Your task to perform on an android device: turn off javascript in the chrome app Image 0: 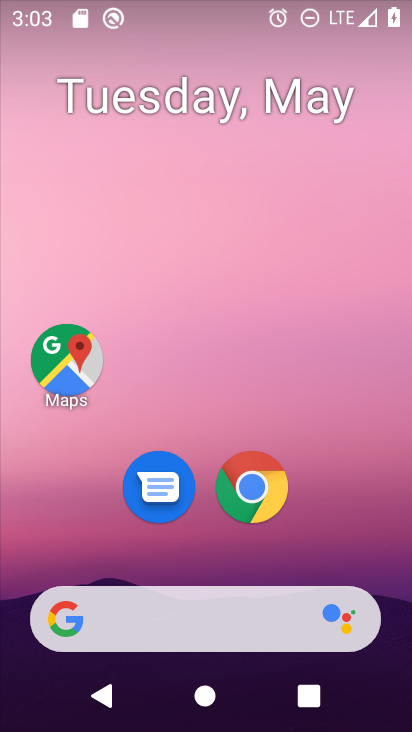
Step 0: click (245, 484)
Your task to perform on an android device: turn off javascript in the chrome app Image 1: 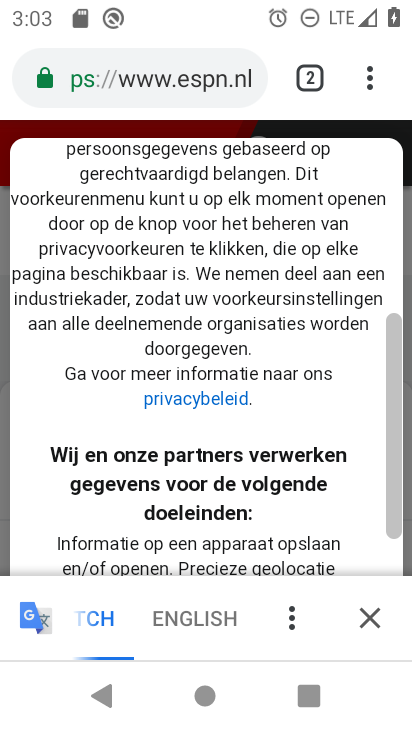
Step 1: click (366, 86)
Your task to perform on an android device: turn off javascript in the chrome app Image 2: 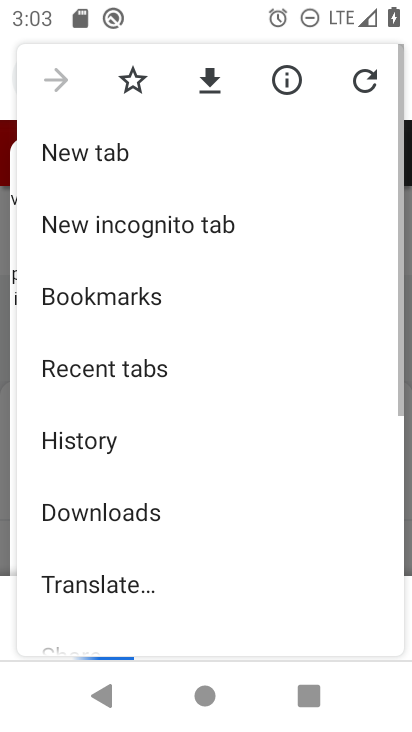
Step 2: drag from (159, 591) to (229, 134)
Your task to perform on an android device: turn off javascript in the chrome app Image 3: 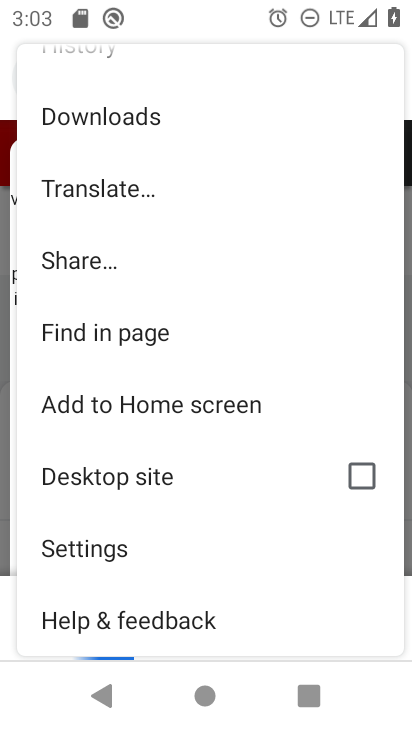
Step 3: click (83, 544)
Your task to perform on an android device: turn off javascript in the chrome app Image 4: 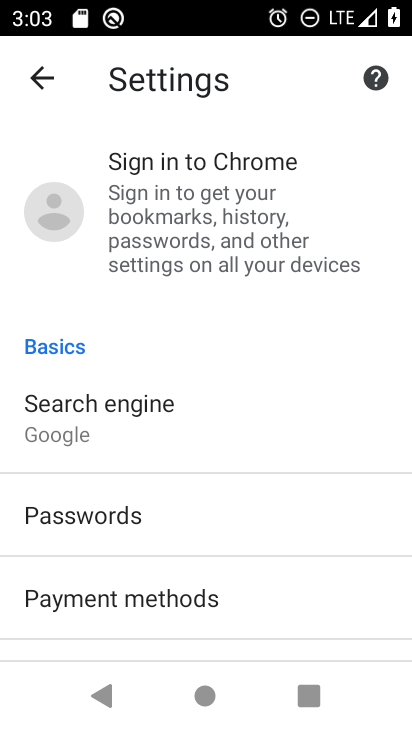
Step 4: drag from (8, 659) to (237, 137)
Your task to perform on an android device: turn off javascript in the chrome app Image 5: 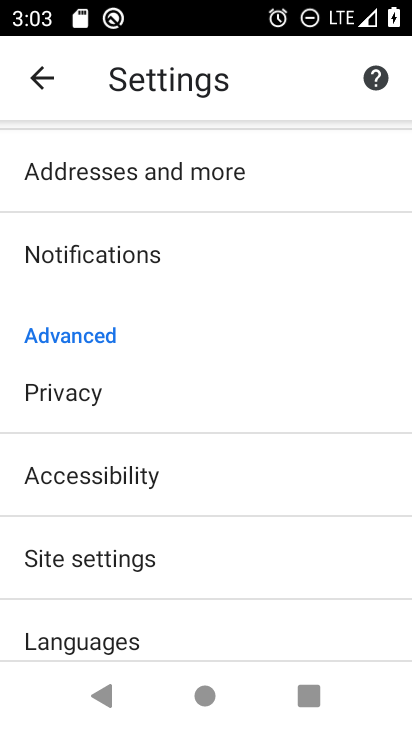
Step 5: click (30, 565)
Your task to perform on an android device: turn off javascript in the chrome app Image 6: 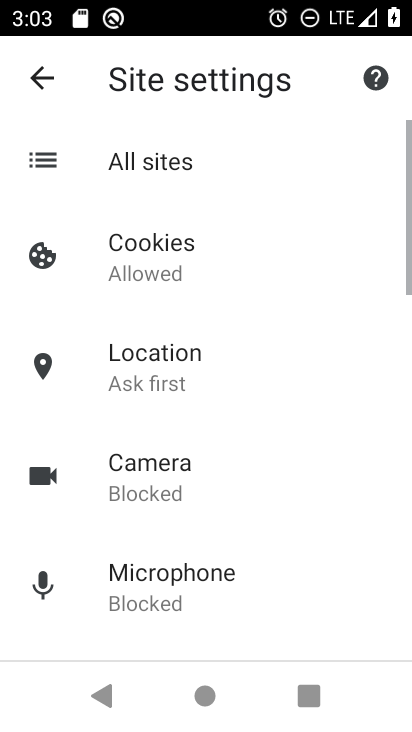
Step 6: drag from (44, 554) to (267, 202)
Your task to perform on an android device: turn off javascript in the chrome app Image 7: 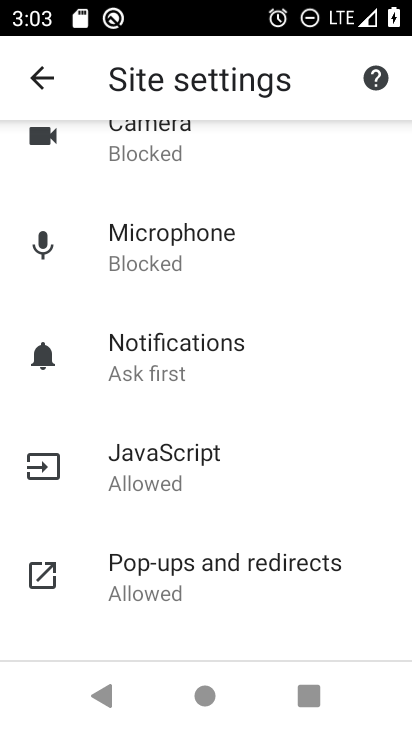
Step 7: click (167, 464)
Your task to perform on an android device: turn off javascript in the chrome app Image 8: 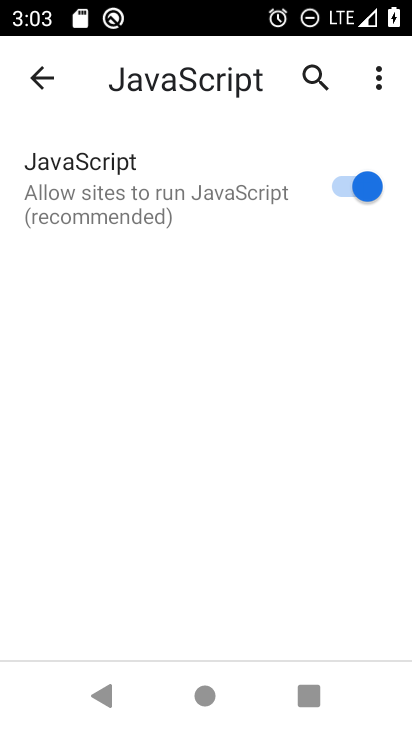
Step 8: click (359, 186)
Your task to perform on an android device: turn off javascript in the chrome app Image 9: 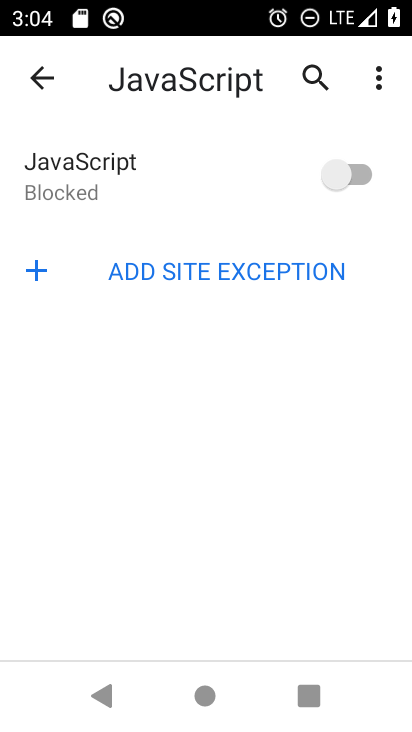
Step 9: task complete